Your task to perform on an android device: read, delete, or share a saved page in the chrome app Image 0: 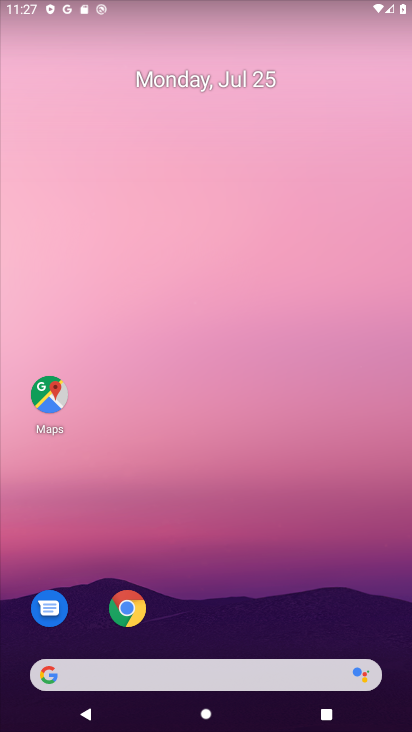
Step 0: click (125, 600)
Your task to perform on an android device: read, delete, or share a saved page in the chrome app Image 1: 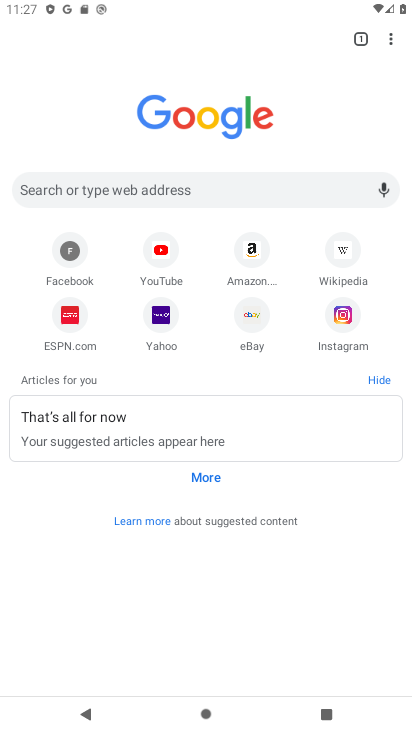
Step 1: click (392, 48)
Your task to perform on an android device: read, delete, or share a saved page in the chrome app Image 2: 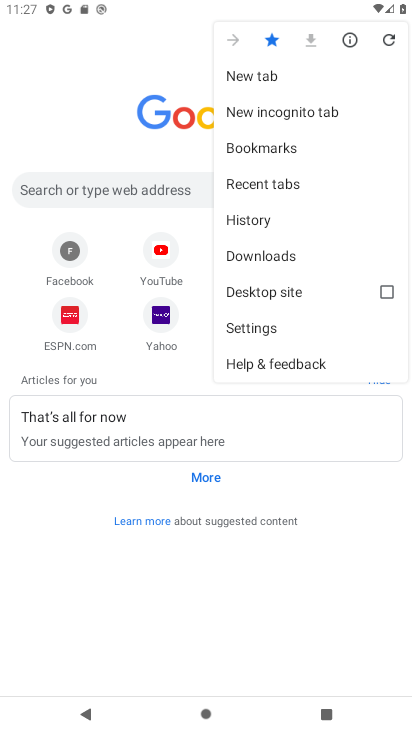
Step 2: click (250, 251)
Your task to perform on an android device: read, delete, or share a saved page in the chrome app Image 3: 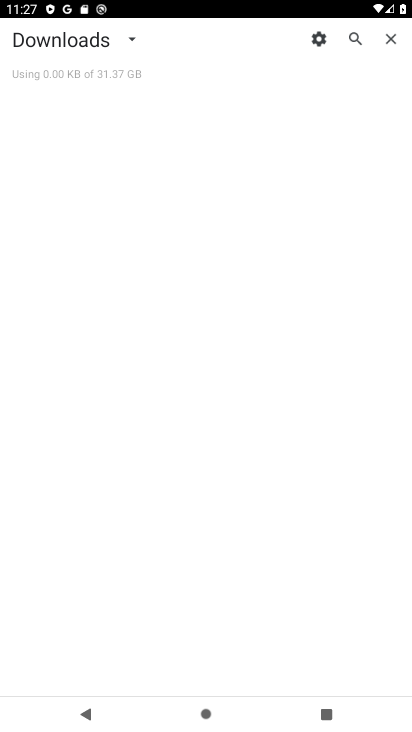
Step 3: task complete